Your task to perform on an android device: open wifi settings Image 0: 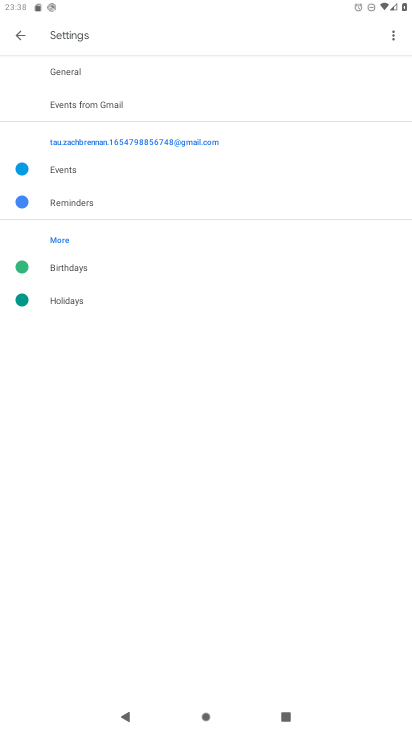
Step 0: drag from (223, 599) to (221, 383)
Your task to perform on an android device: open wifi settings Image 1: 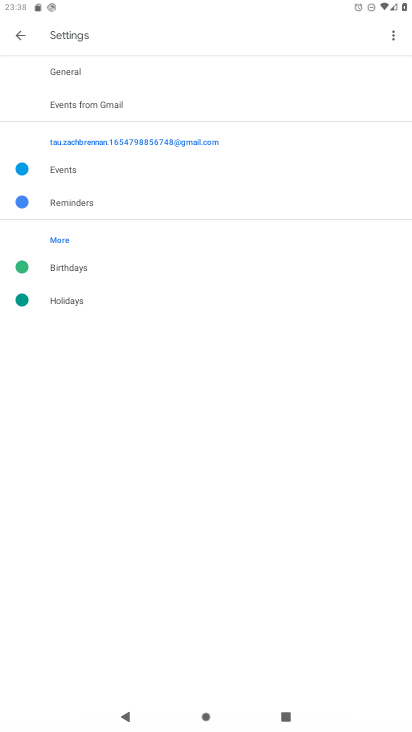
Step 1: press home button
Your task to perform on an android device: open wifi settings Image 2: 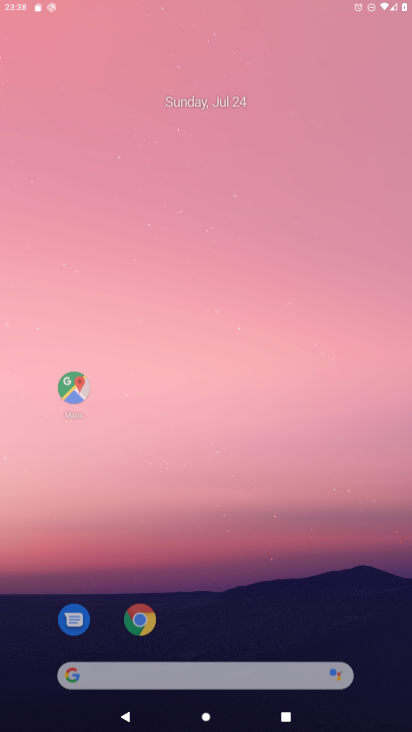
Step 2: drag from (241, 613) to (220, 169)
Your task to perform on an android device: open wifi settings Image 3: 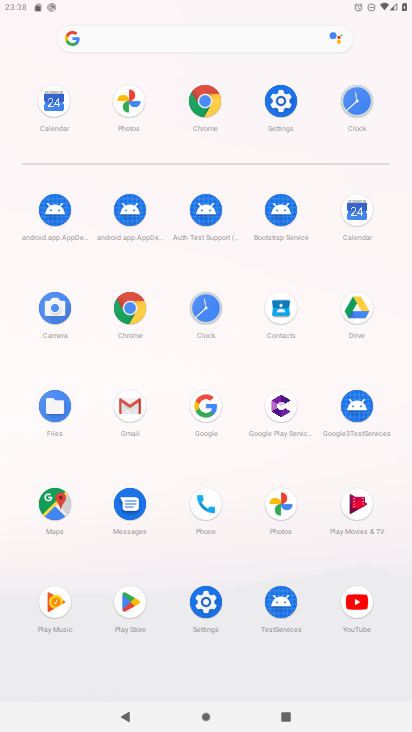
Step 3: click (199, 599)
Your task to perform on an android device: open wifi settings Image 4: 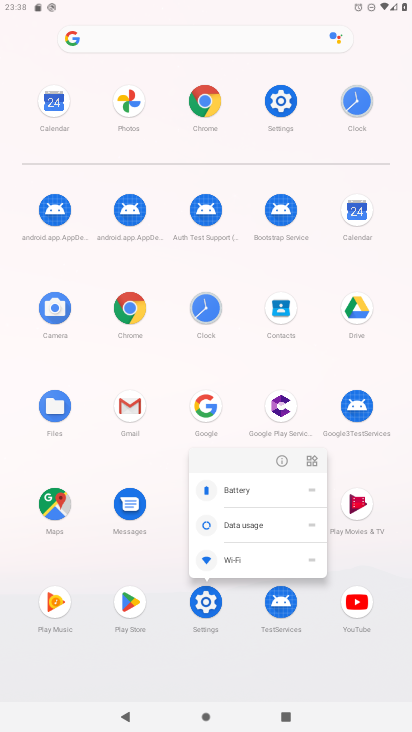
Step 4: click (285, 458)
Your task to perform on an android device: open wifi settings Image 5: 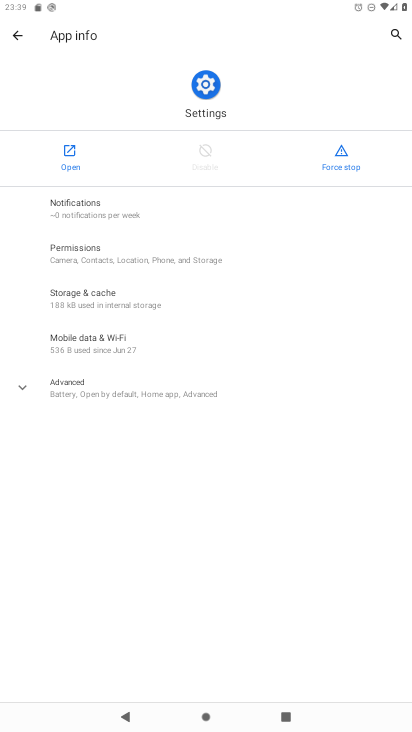
Step 5: click (72, 151)
Your task to perform on an android device: open wifi settings Image 6: 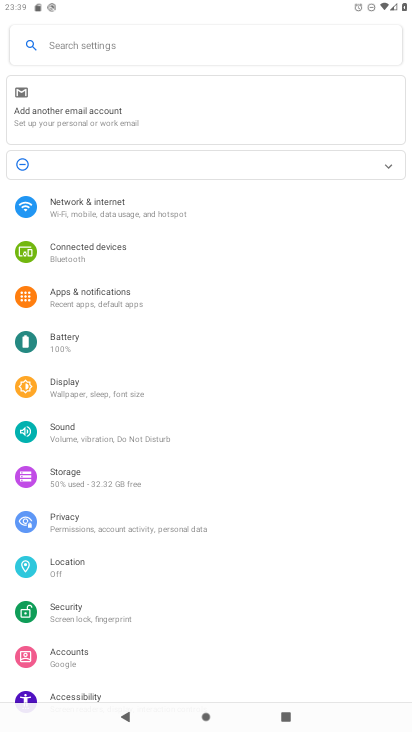
Step 6: click (109, 198)
Your task to perform on an android device: open wifi settings Image 7: 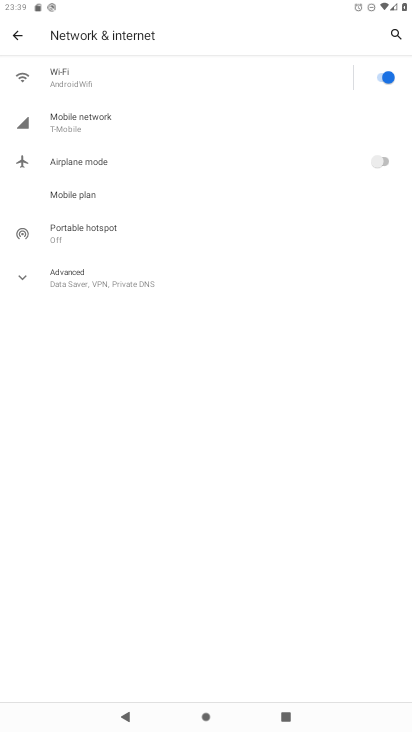
Step 7: click (188, 73)
Your task to perform on an android device: open wifi settings Image 8: 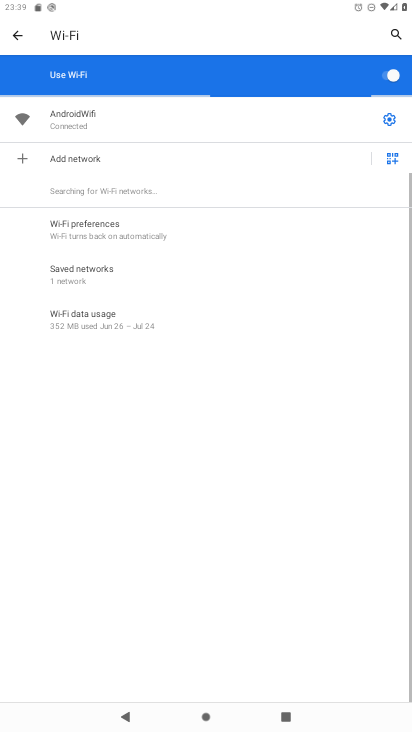
Step 8: drag from (218, 583) to (293, 120)
Your task to perform on an android device: open wifi settings Image 9: 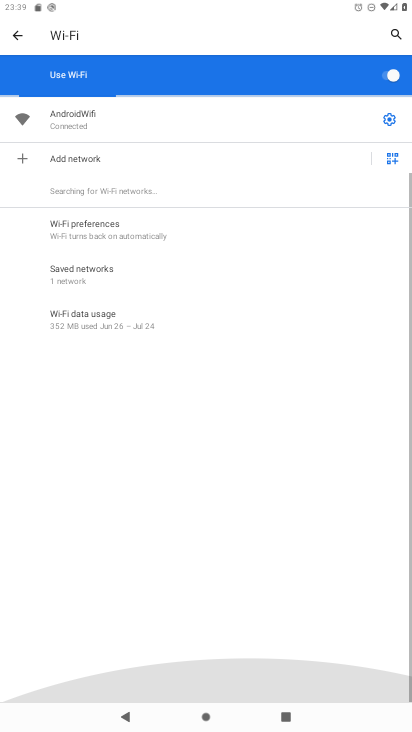
Step 9: click (390, 115)
Your task to perform on an android device: open wifi settings Image 10: 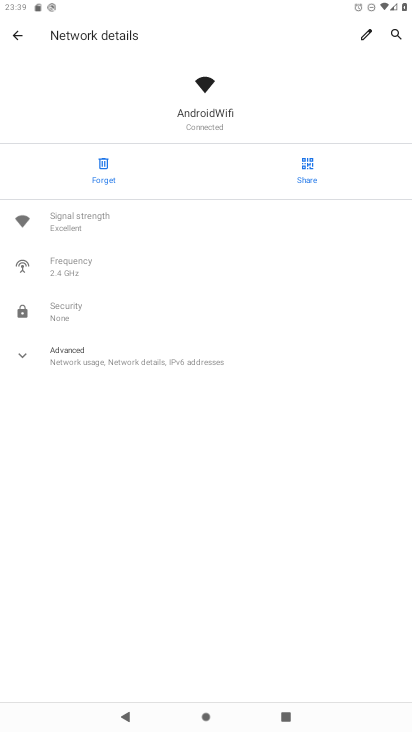
Step 10: task complete